Your task to perform on an android device: choose inbox layout in the gmail app Image 0: 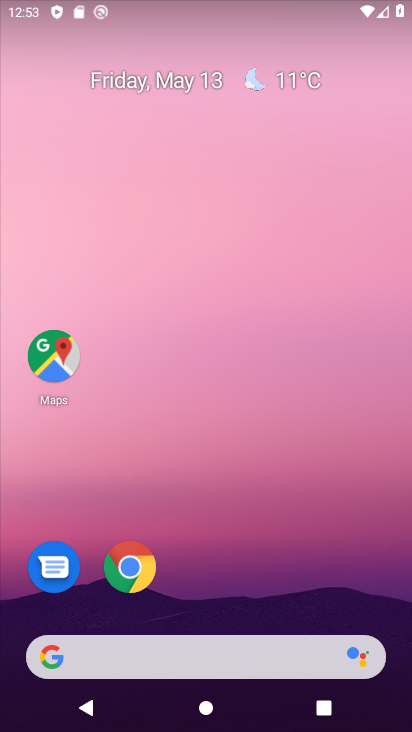
Step 0: press home button
Your task to perform on an android device: choose inbox layout in the gmail app Image 1: 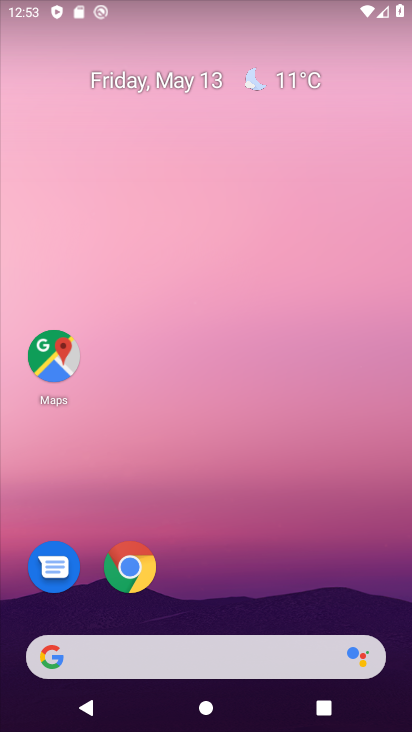
Step 1: drag from (196, 610) to (186, 96)
Your task to perform on an android device: choose inbox layout in the gmail app Image 2: 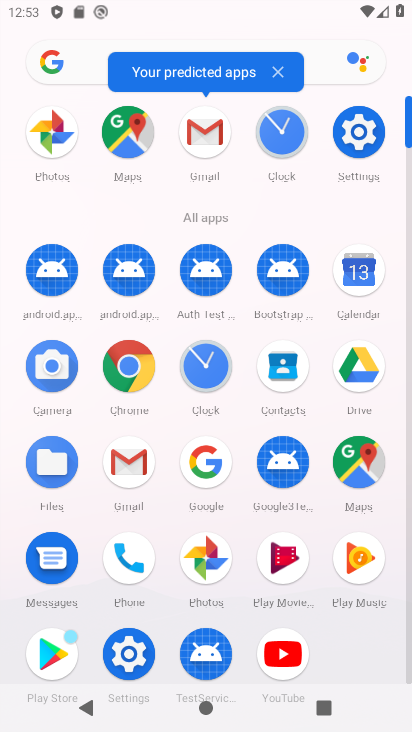
Step 2: click (200, 124)
Your task to perform on an android device: choose inbox layout in the gmail app Image 3: 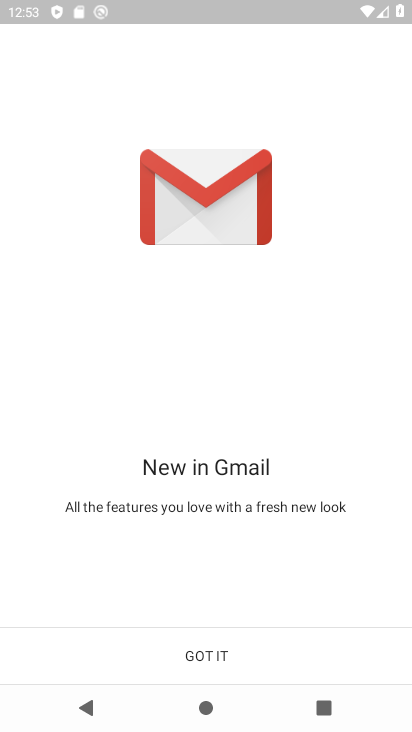
Step 3: click (205, 656)
Your task to perform on an android device: choose inbox layout in the gmail app Image 4: 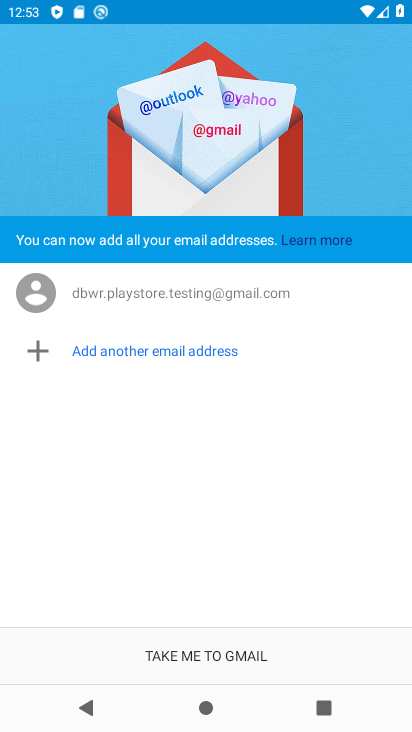
Step 4: click (210, 656)
Your task to perform on an android device: choose inbox layout in the gmail app Image 5: 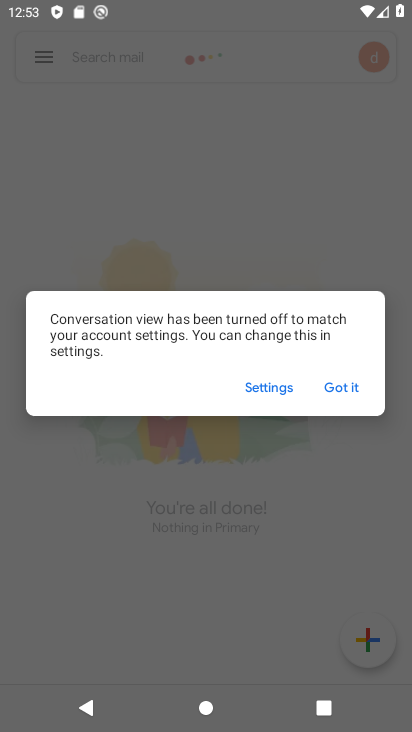
Step 5: click (328, 394)
Your task to perform on an android device: choose inbox layout in the gmail app Image 6: 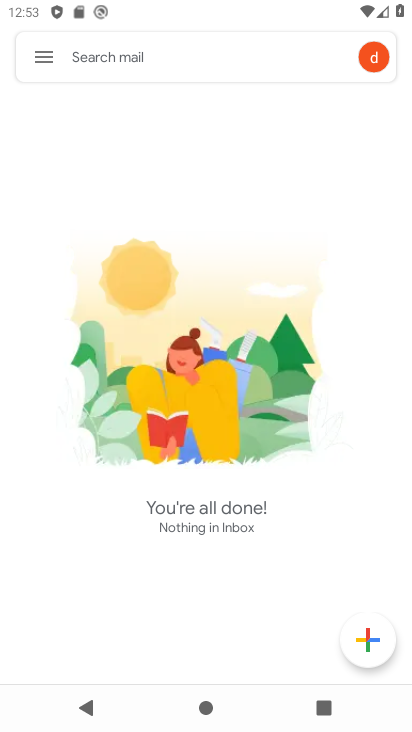
Step 6: click (37, 59)
Your task to perform on an android device: choose inbox layout in the gmail app Image 7: 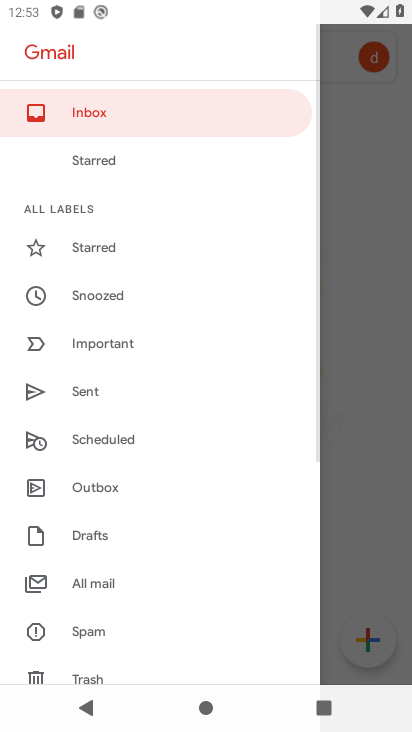
Step 7: drag from (132, 662) to (139, 124)
Your task to perform on an android device: choose inbox layout in the gmail app Image 8: 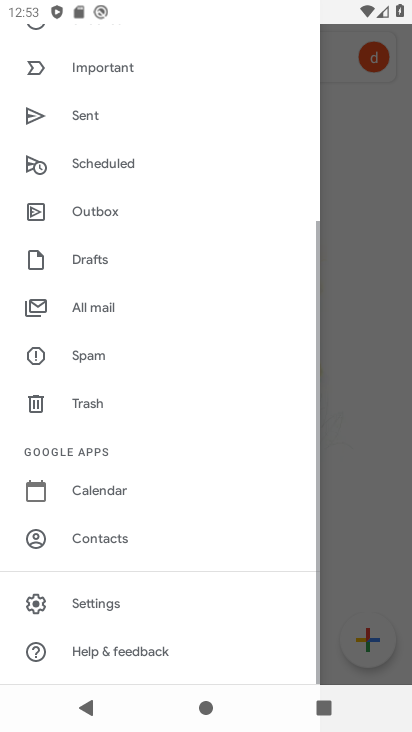
Step 8: click (129, 604)
Your task to perform on an android device: choose inbox layout in the gmail app Image 9: 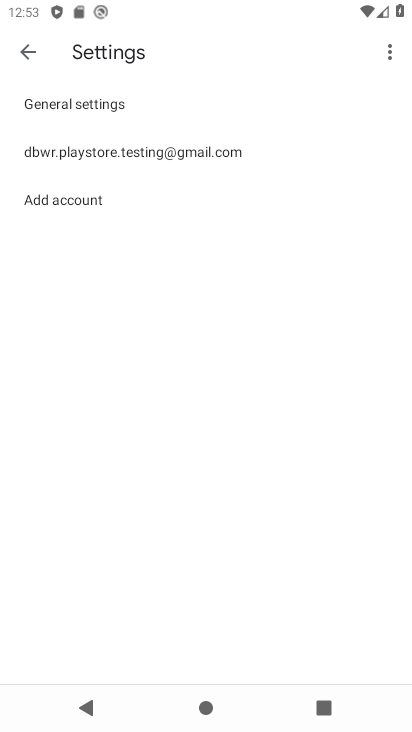
Step 9: click (161, 149)
Your task to perform on an android device: choose inbox layout in the gmail app Image 10: 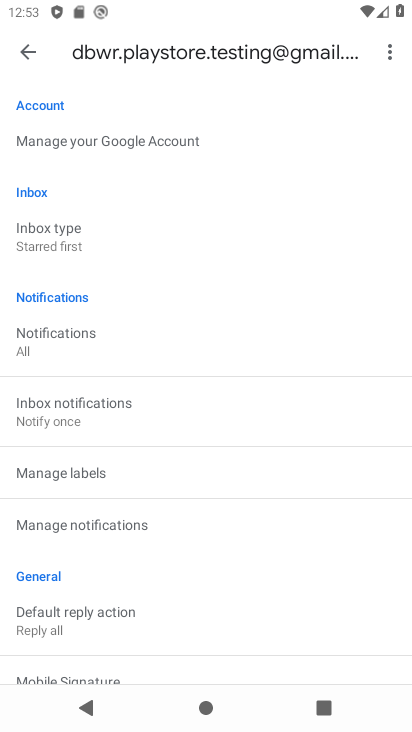
Step 10: click (85, 237)
Your task to perform on an android device: choose inbox layout in the gmail app Image 11: 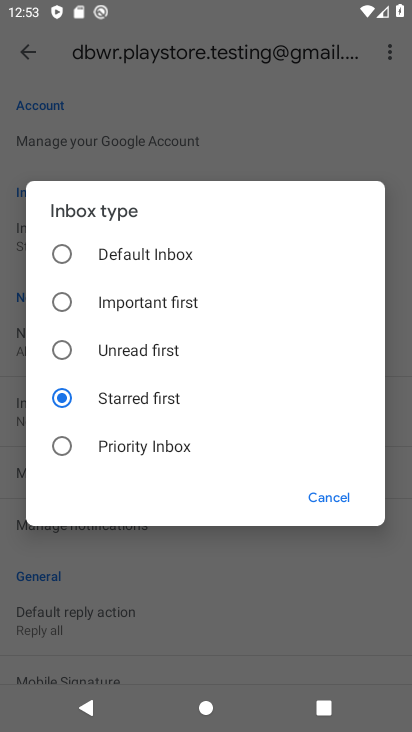
Step 11: click (63, 253)
Your task to perform on an android device: choose inbox layout in the gmail app Image 12: 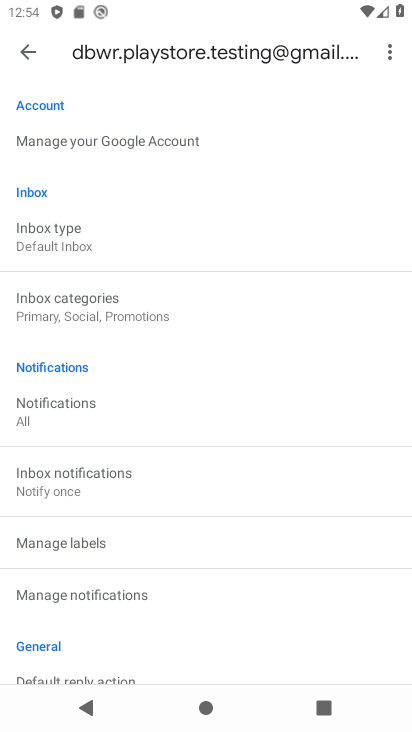
Step 12: task complete